Your task to perform on an android device: check storage Image 0: 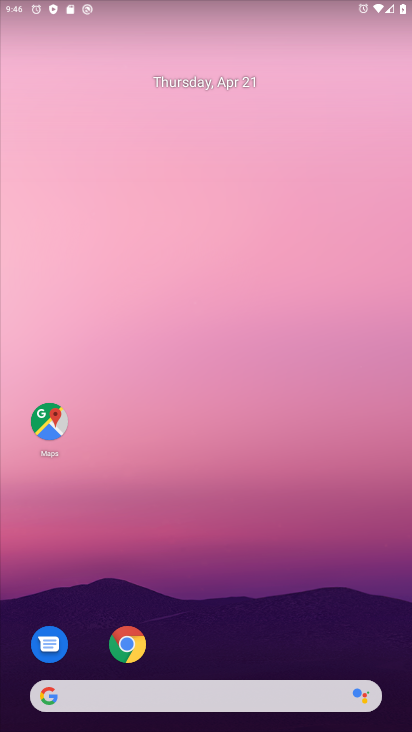
Step 0: drag from (191, 533) to (195, 58)
Your task to perform on an android device: check storage Image 1: 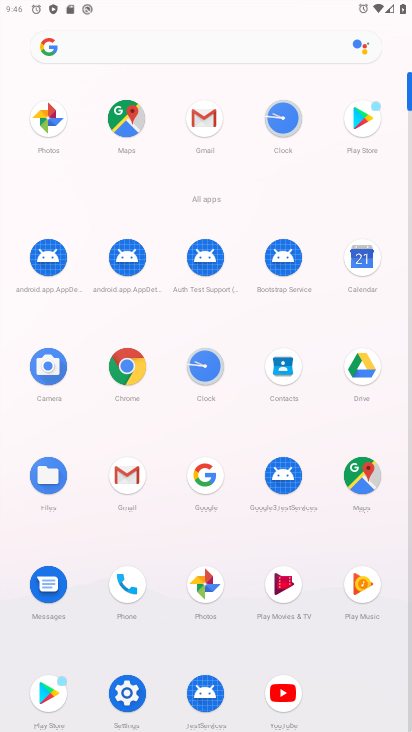
Step 1: click (133, 695)
Your task to perform on an android device: check storage Image 2: 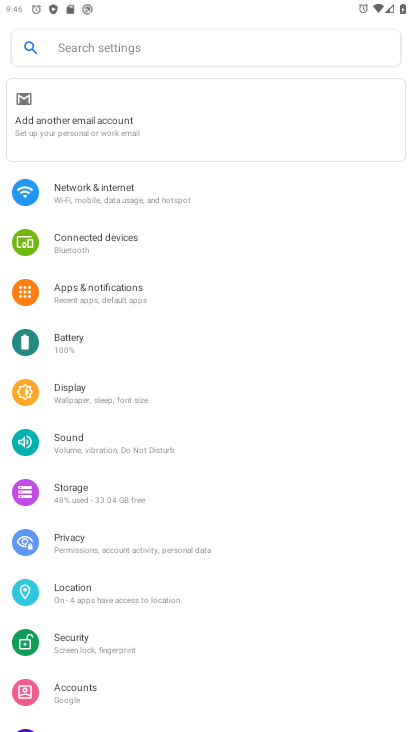
Step 2: drag from (154, 680) to (199, 89)
Your task to perform on an android device: check storage Image 3: 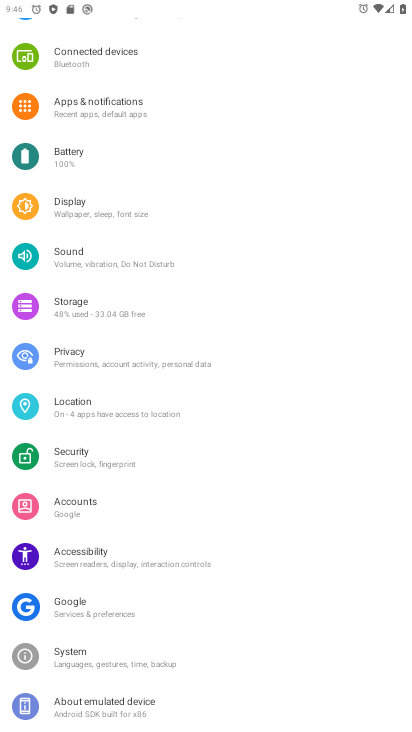
Step 3: click (125, 312)
Your task to perform on an android device: check storage Image 4: 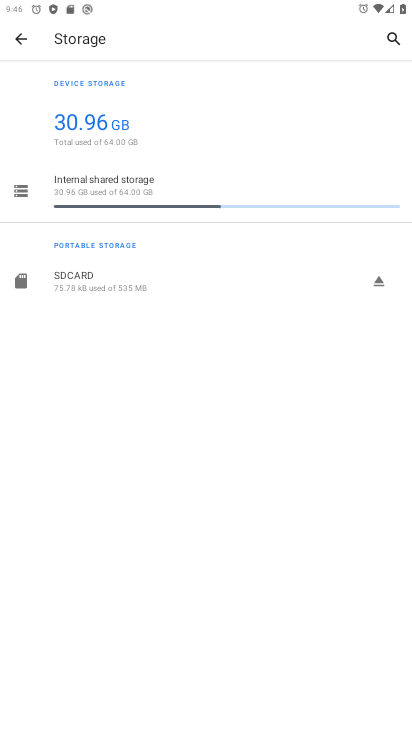
Step 4: task complete